Your task to perform on an android device: Is it going to rain this weekend? Image 0: 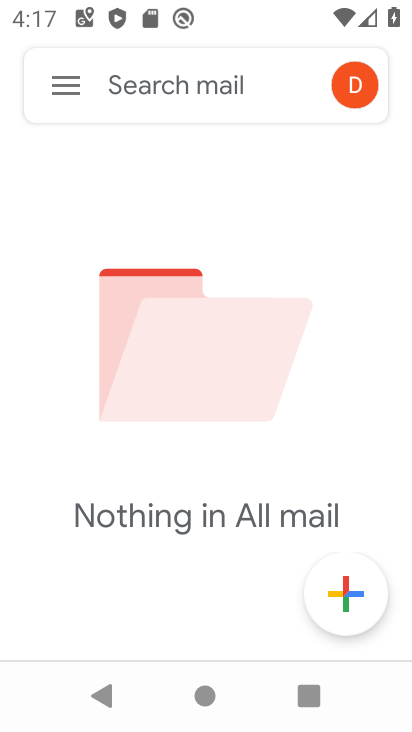
Step 0: press home button
Your task to perform on an android device: Is it going to rain this weekend? Image 1: 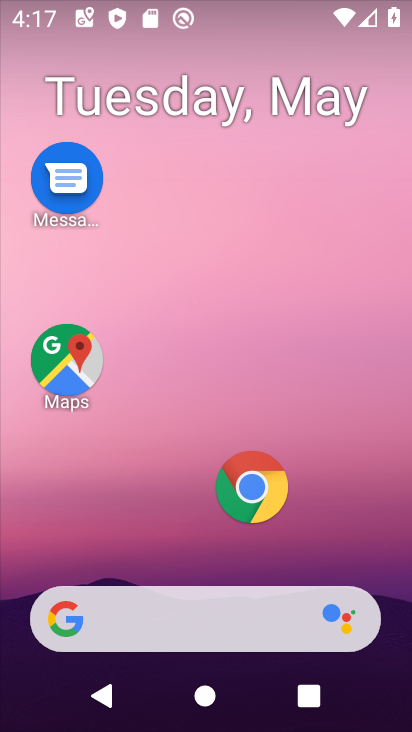
Step 1: drag from (202, 538) to (80, 10)
Your task to perform on an android device: Is it going to rain this weekend? Image 2: 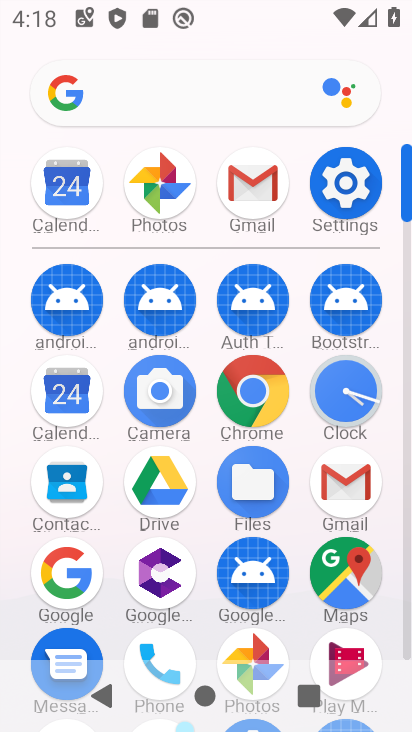
Step 2: click (65, 573)
Your task to perform on an android device: Is it going to rain this weekend? Image 3: 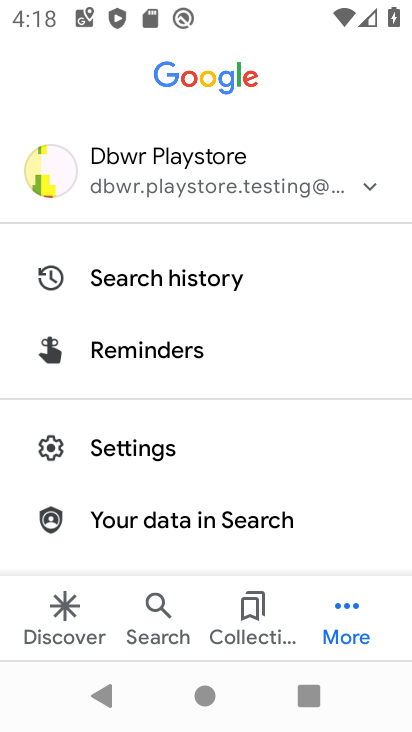
Step 3: press home button
Your task to perform on an android device: Is it going to rain this weekend? Image 4: 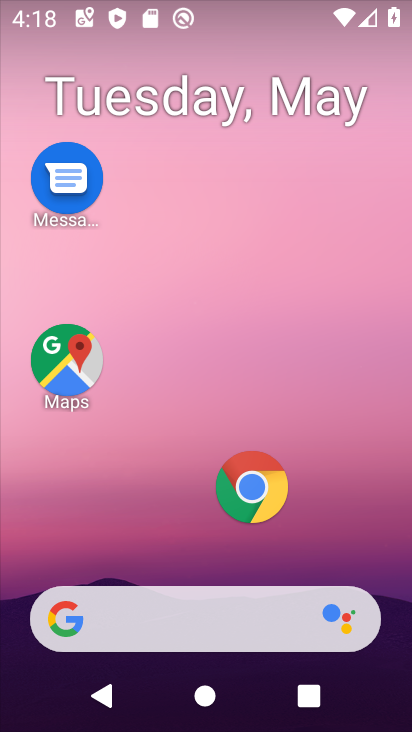
Step 4: drag from (138, 309) to (138, 97)
Your task to perform on an android device: Is it going to rain this weekend? Image 5: 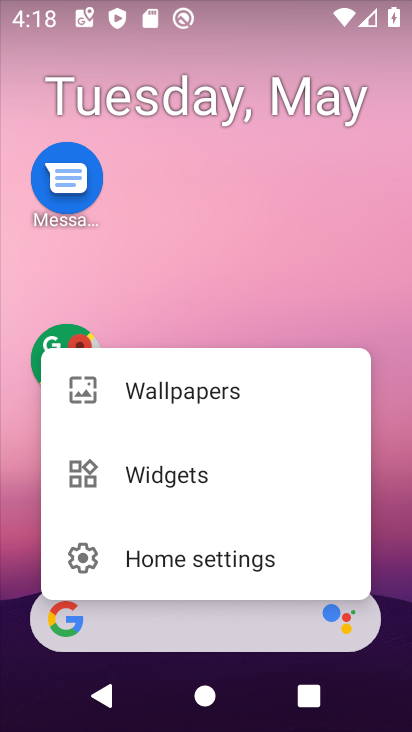
Step 5: click (211, 271)
Your task to perform on an android device: Is it going to rain this weekend? Image 6: 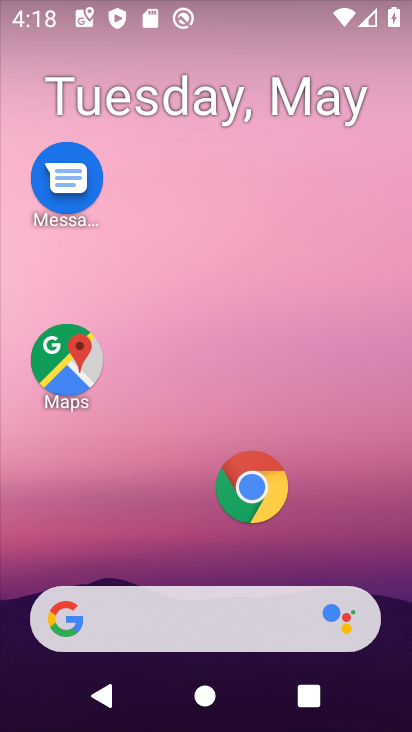
Step 6: click (177, 603)
Your task to perform on an android device: Is it going to rain this weekend? Image 7: 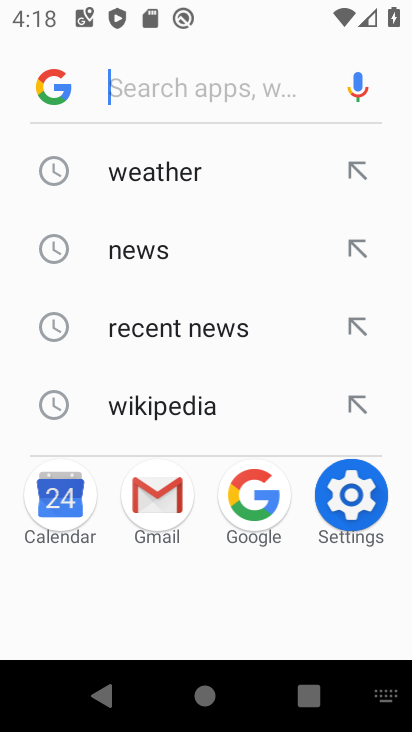
Step 7: click (128, 173)
Your task to perform on an android device: Is it going to rain this weekend? Image 8: 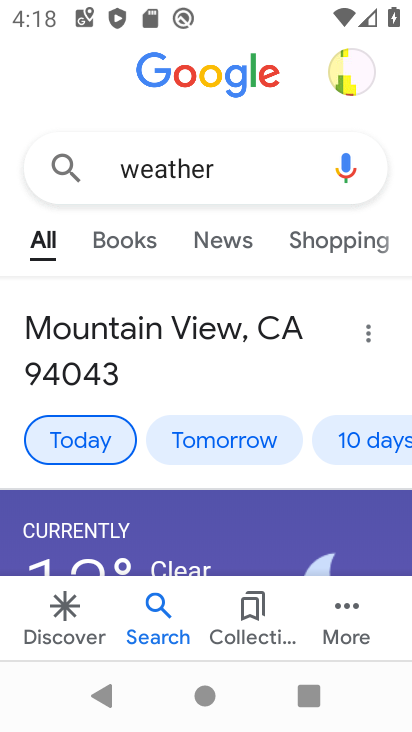
Step 8: click (360, 443)
Your task to perform on an android device: Is it going to rain this weekend? Image 9: 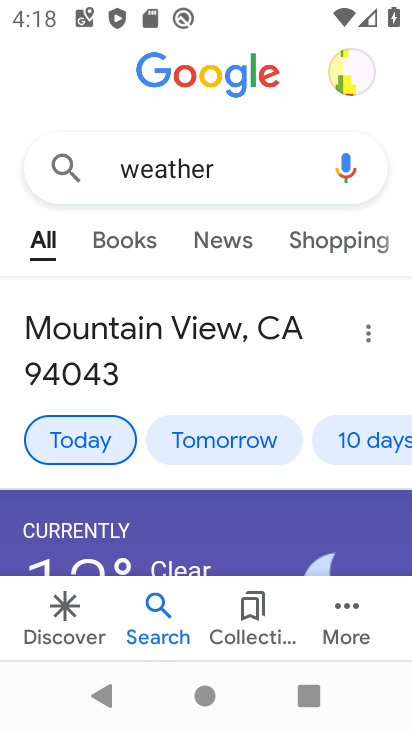
Step 9: click (357, 437)
Your task to perform on an android device: Is it going to rain this weekend? Image 10: 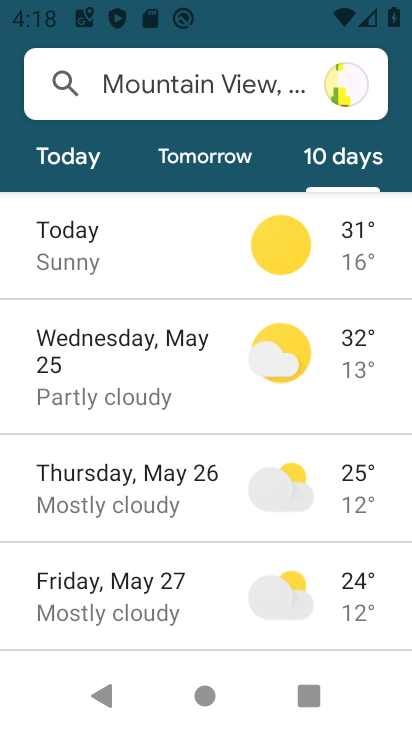
Step 10: task complete